Your task to perform on an android device: read, delete, or share a saved page in the chrome app Image 0: 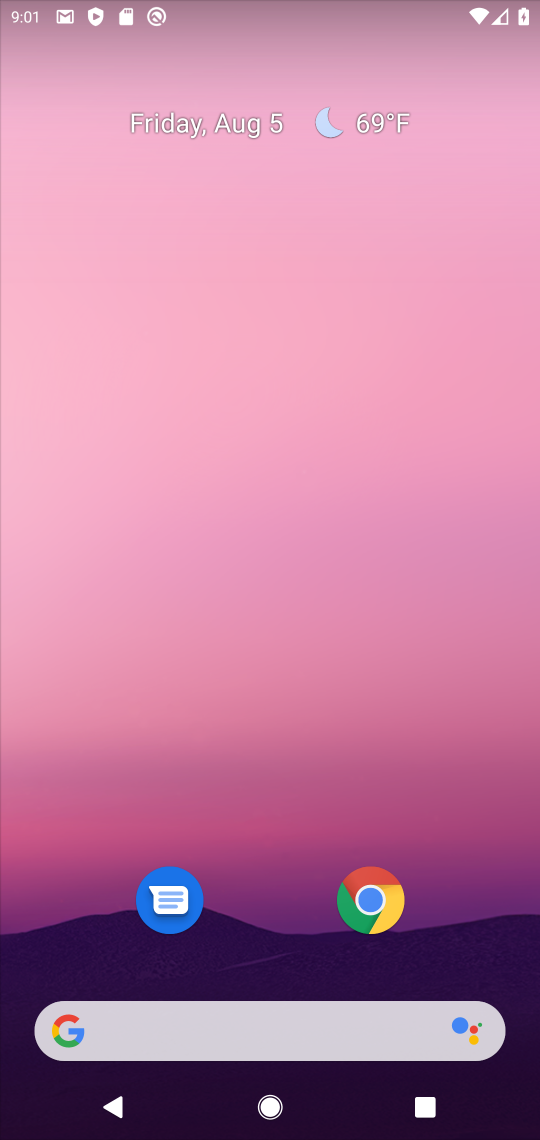
Step 0: click (376, 933)
Your task to perform on an android device: read, delete, or share a saved page in the chrome app Image 1: 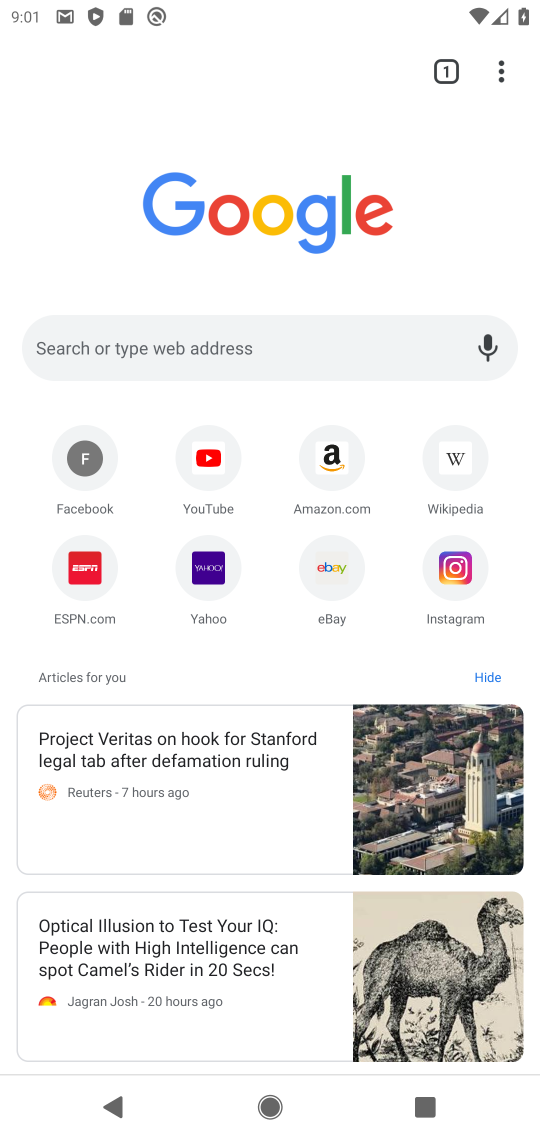
Step 1: click (509, 67)
Your task to perform on an android device: read, delete, or share a saved page in the chrome app Image 2: 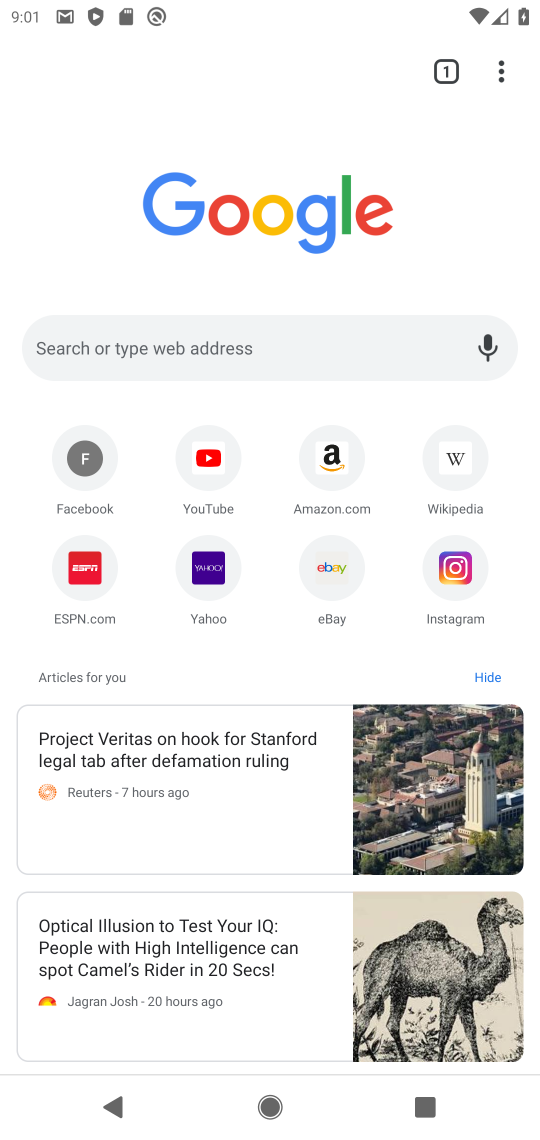
Step 2: click (509, 67)
Your task to perform on an android device: read, delete, or share a saved page in the chrome app Image 3: 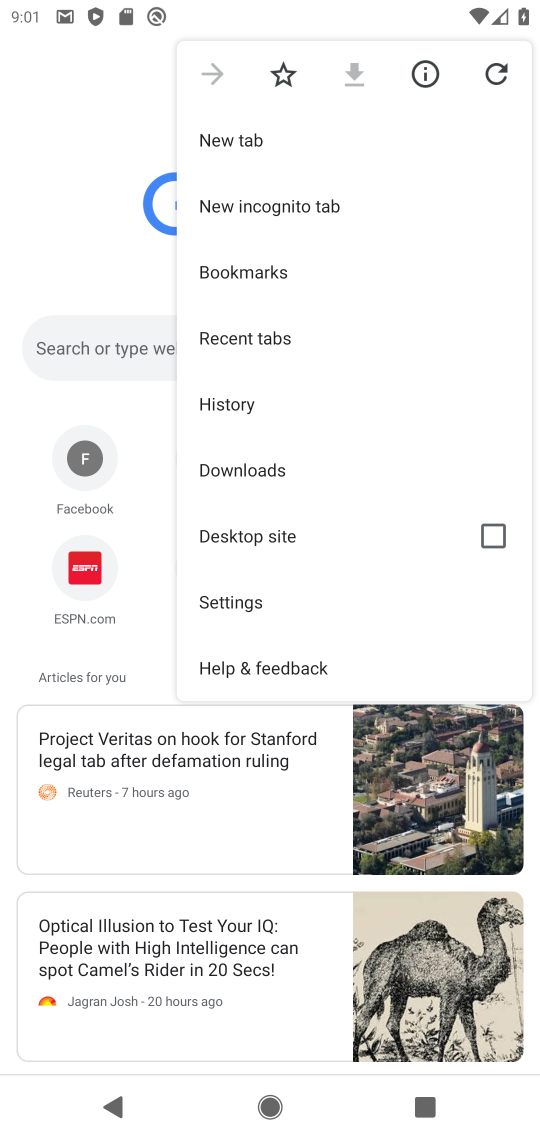
Step 3: click (240, 476)
Your task to perform on an android device: read, delete, or share a saved page in the chrome app Image 4: 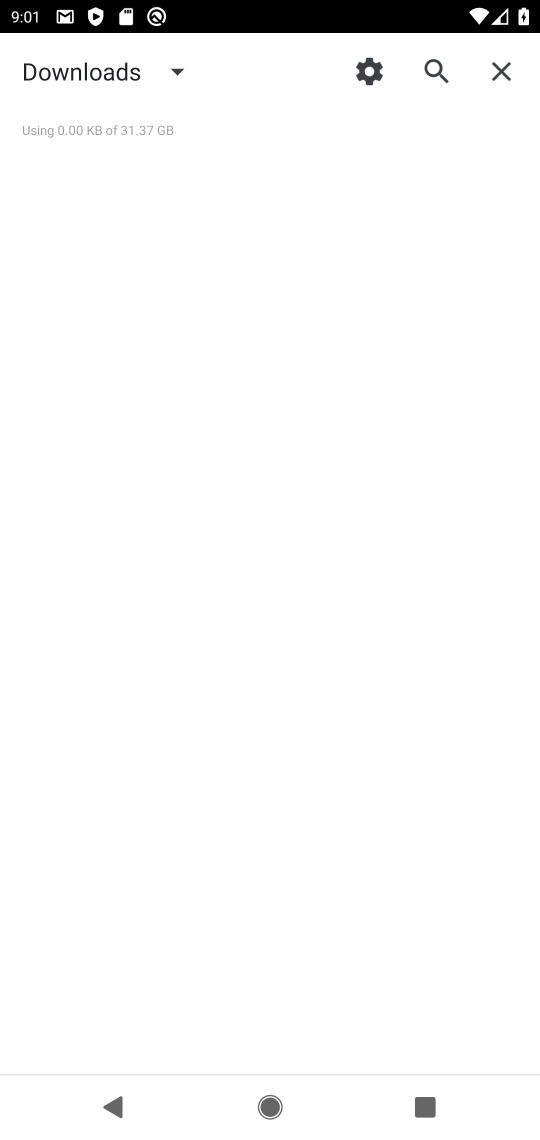
Step 4: click (193, 73)
Your task to perform on an android device: read, delete, or share a saved page in the chrome app Image 5: 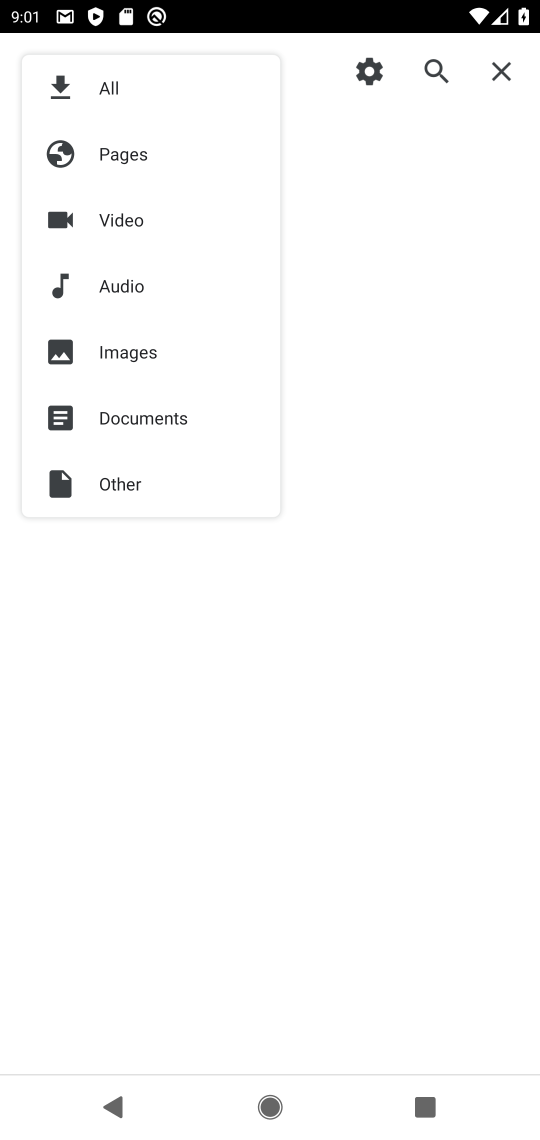
Step 5: click (168, 141)
Your task to perform on an android device: read, delete, or share a saved page in the chrome app Image 6: 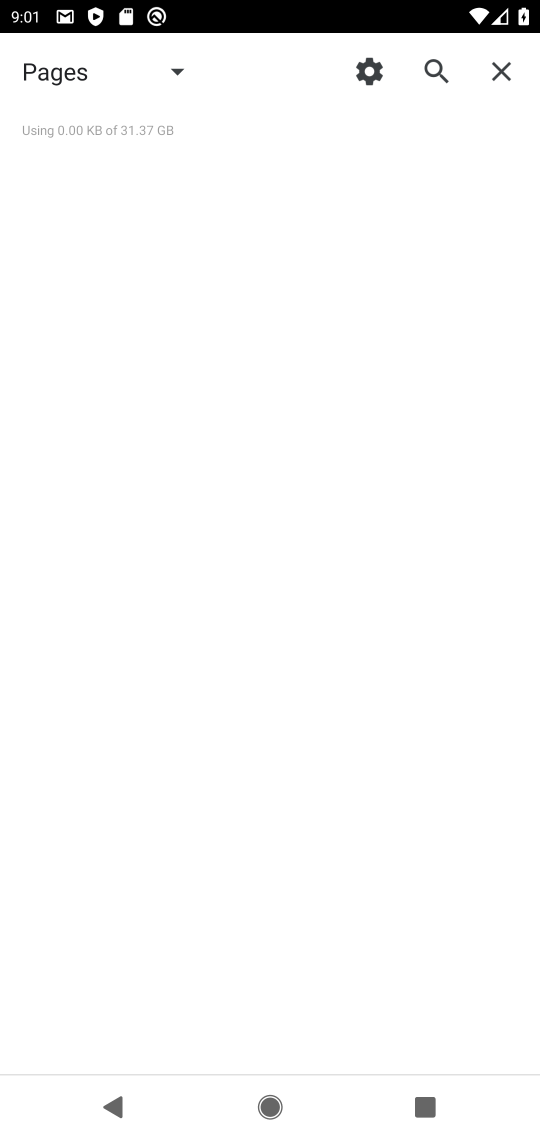
Step 6: task complete